Your task to perform on an android device: turn off notifications settings in the gmail app Image 0: 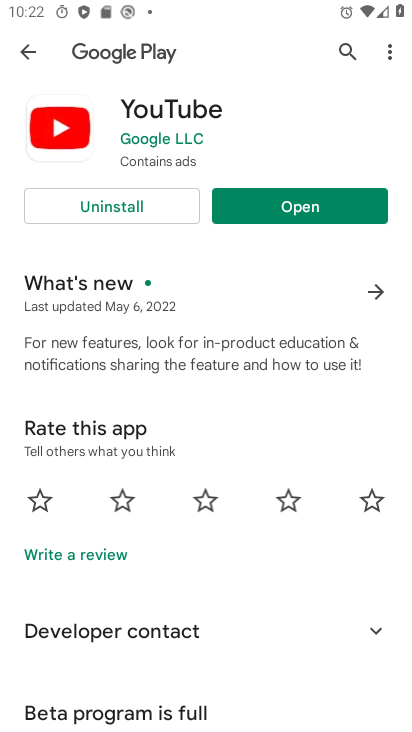
Step 0: press home button
Your task to perform on an android device: turn off notifications settings in the gmail app Image 1: 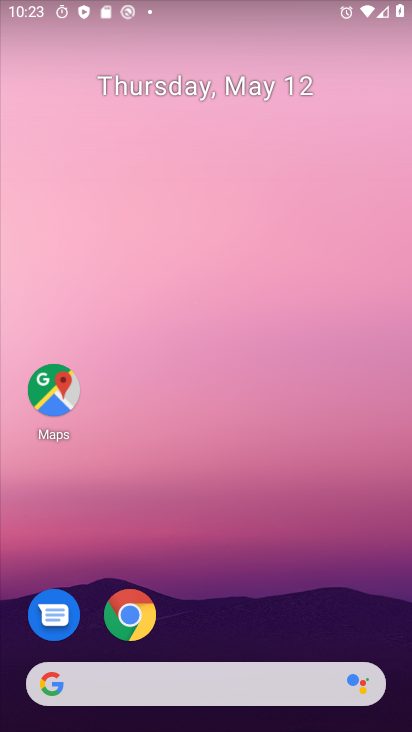
Step 1: drag from (282, 573) to (259, 157)
Your task to perform on an android device: turn off notifications settings in the gmail app Image 2: 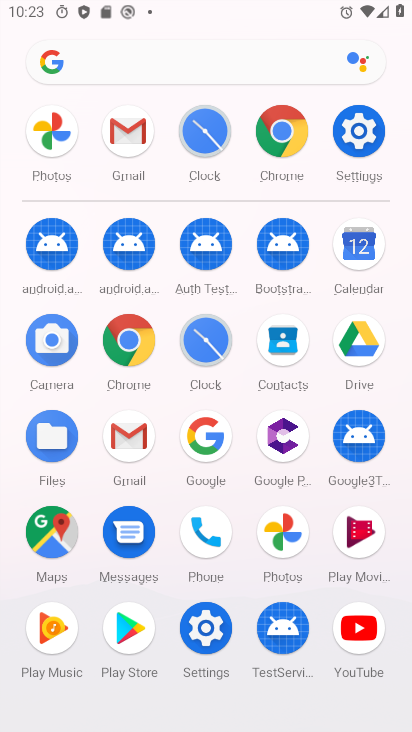
Step 2: click (132, 440)
Your task to perform on an android device: turn off notifications settings in the gmail app Image 3: 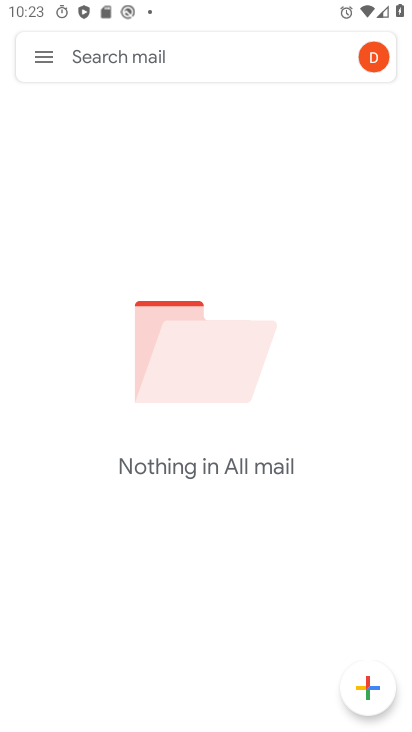
Step 3: click (46, 50)
Your task to perform on an android device: turn off notifications settings in the gmail app Image 4: 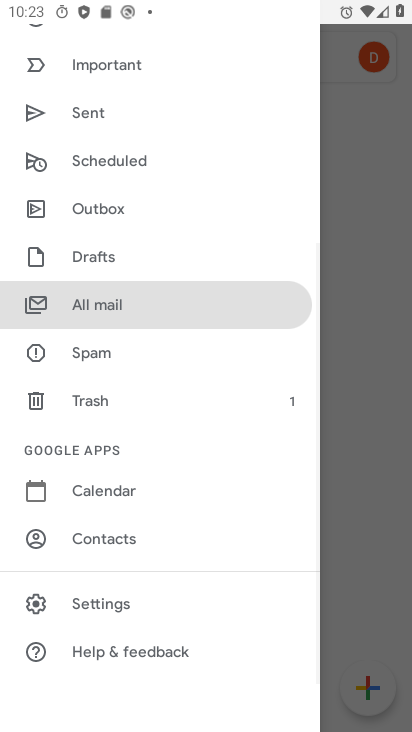
Step 4: click (135, 602)
Your task to perform on an android device: turn off notifications settings in the gmail app Image 5: 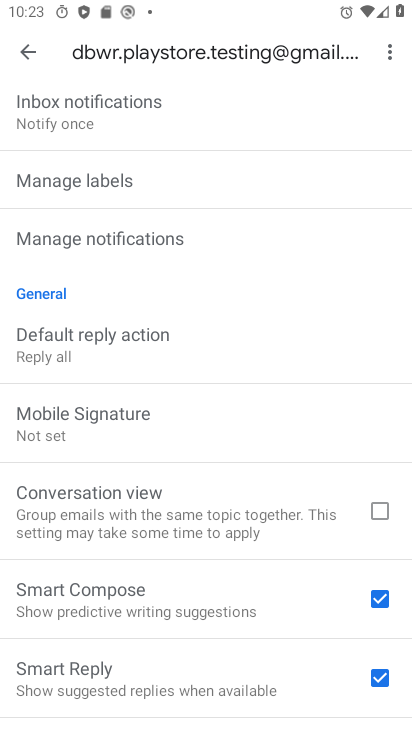
Step 5: drag from (201, 488) to (218, 580)
Your task to perform on an android device: turn off notifications settings in the gmail app Image 6: 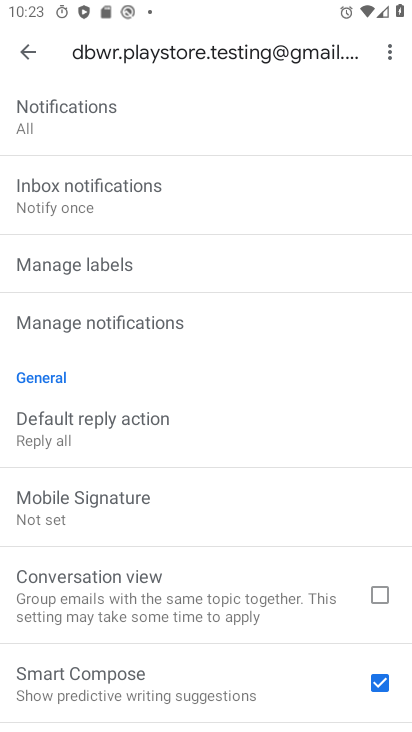
Step 6: click (134, 325)
Your task to perform on an android device: turn off notifications settings in the gmail app Image 7: 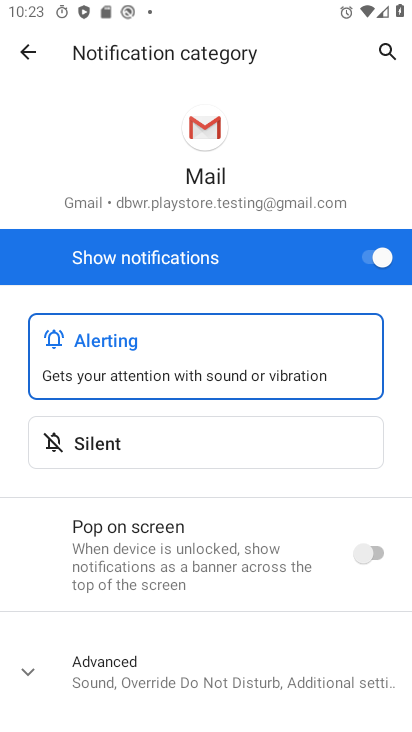
Step 7: click (368, 259)
Your task to perform on an android device: turn off notifications settings in the gmail app Image 8: 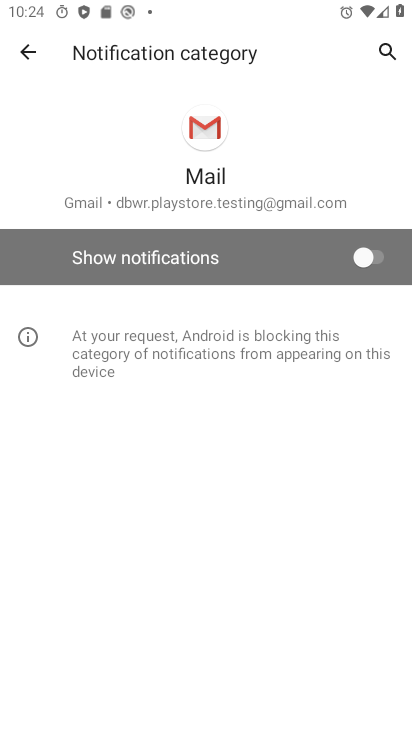
Step 8: task complete